Your task to perform on an android device: Go to network settings Image 0: 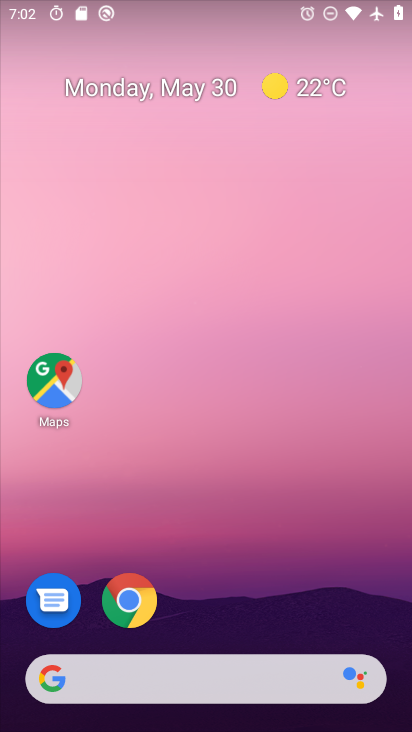
Step 0: press home button
Your task to perform on an android device: Go to network settings Image 1: 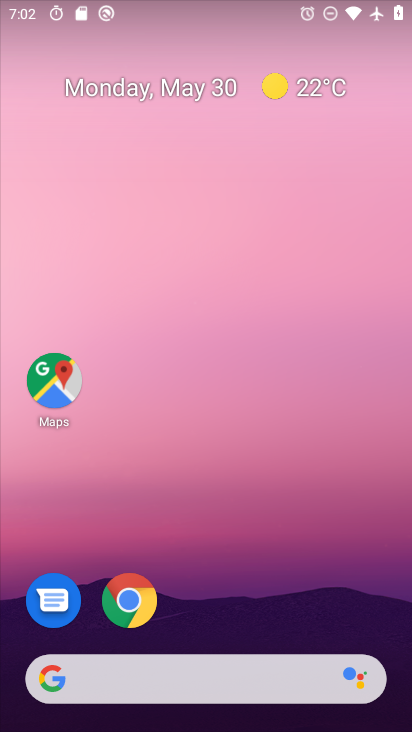
Step 1: drag from (251, 610) to (209, 176)
Your task to perform on an android device: Go to network settings Image 2: 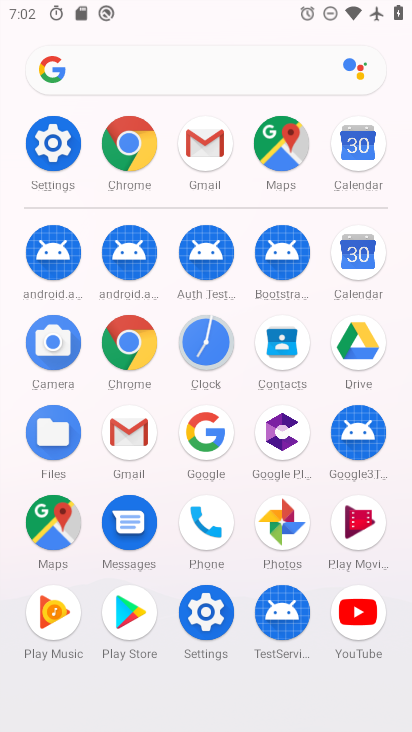
Step 2: click (53, 138)
Your task to perform on an android device: Go to network settings Image 3: 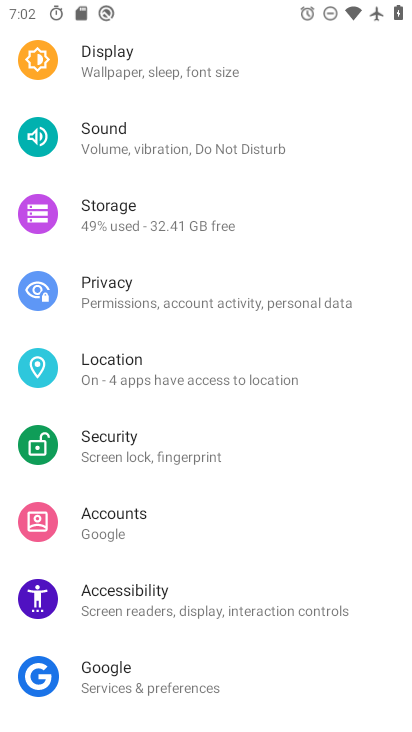
Step 3: drag from (321, 99) to (302, 460)
Your task to perform on an android device: Go to network settings Image 4: 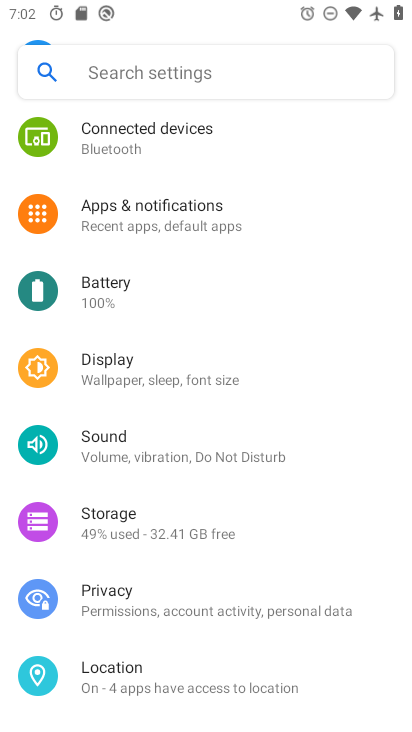
Step 4: drag from (310, 129) to (267, 477)
Your task to perform on an android device: Go to network settings Image 5: 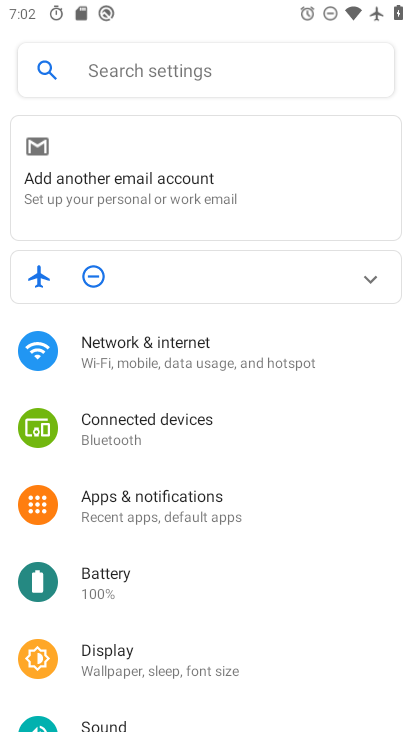
Step 5: click (133, 343)
Your task to perform on an android device: Go to network settings Image 6: 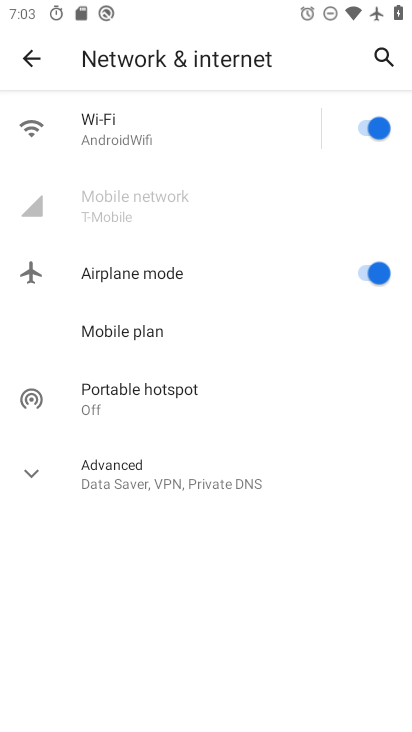
Step 6: task complete